Your task to perform on an android device: Open Reddit.com Image 0: 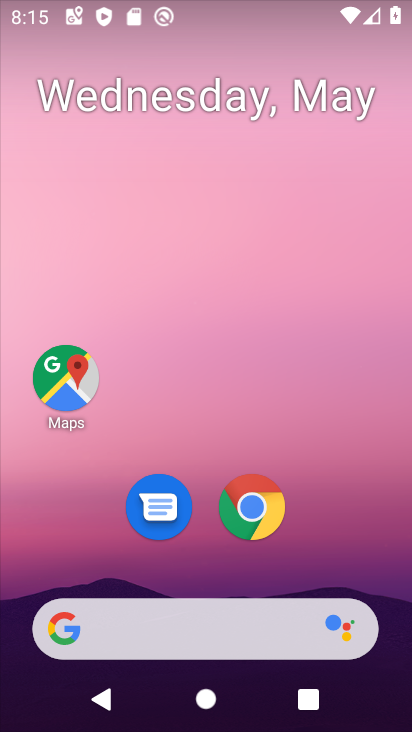
Step 0: click (260, 496)
Your task to perform on an android device: Open Reddit.com Image 1: 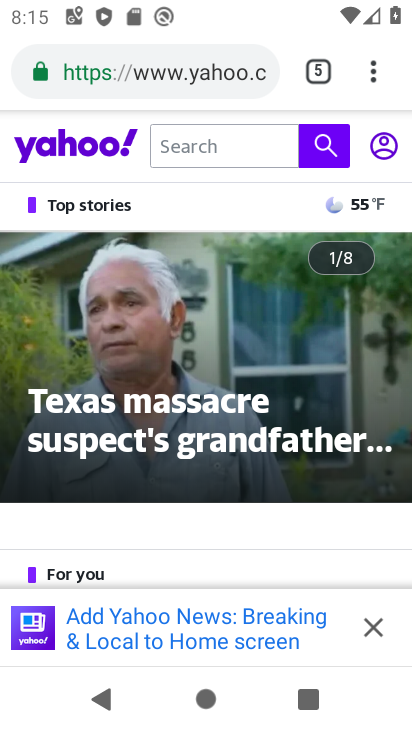
Step 1: click (366, 70)
Your task to perform on an android device: Open Reddit.com Image 2: 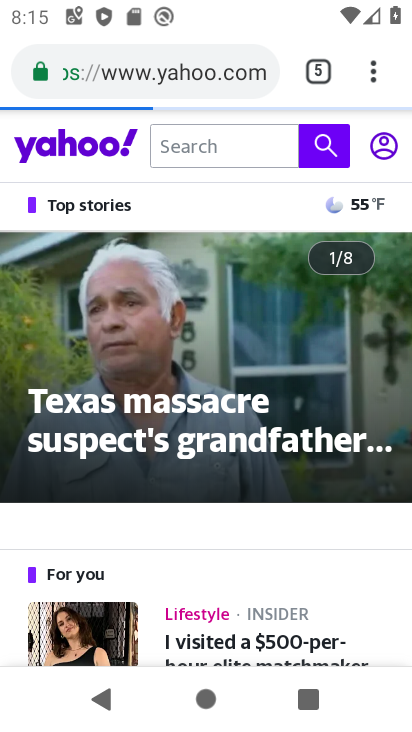
Step 2: click (329, 62)
Your task to perform on an android device: Open Reddit.com Image 3: 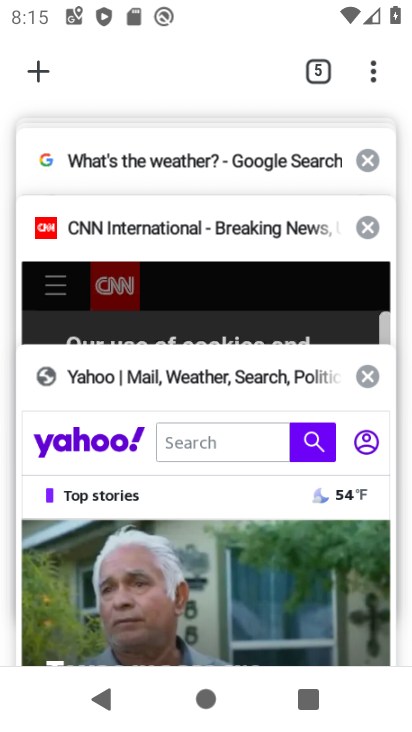
Step 3: drag from (142, 225) to (86, 576)
Your task to perform on an android device: Open Reddit.com Image 4: 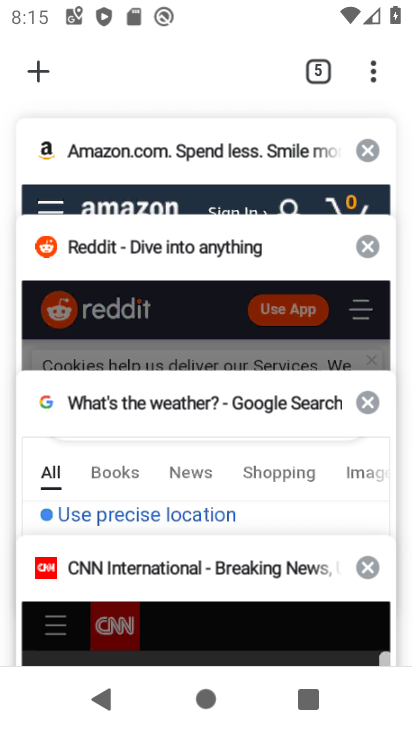
Step 4: click (145, 314)
Your task to perform on an android device: Open Reddit.com Image 5: 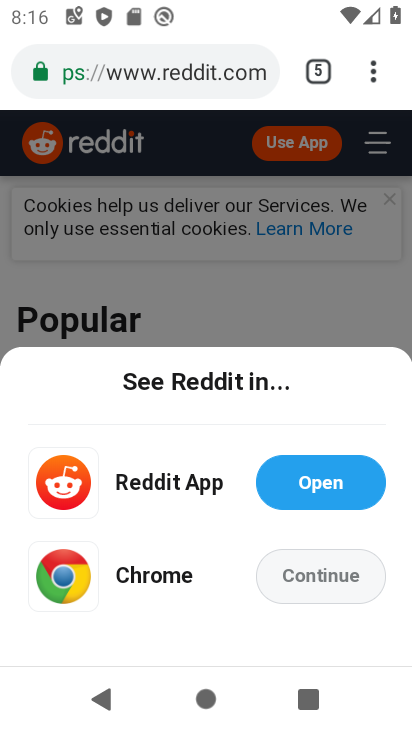
Step 5: task complete